Your task to perform on an android device: Go to internet settings Image 0: 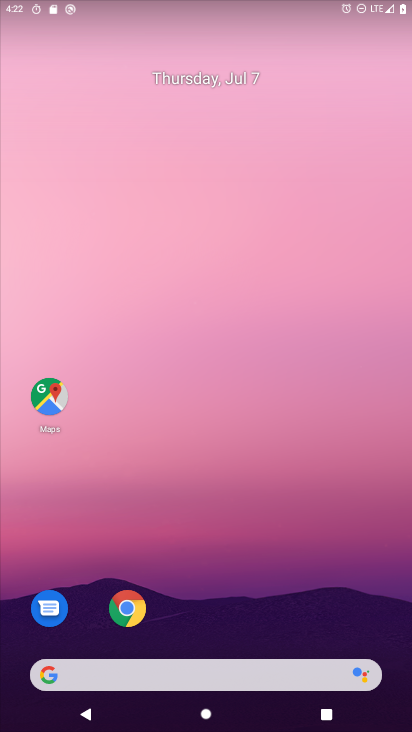
Step 0: drag from (236, 617) to (236, 90)
Your task to perform on an android device: Go to internet settings Image 1: 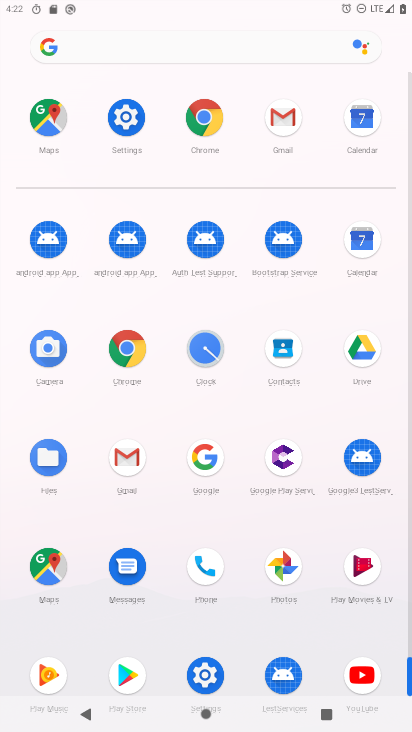
Step 1: click (134, 109)
Your task to perform on an android device: Go to internet settings Image 2: 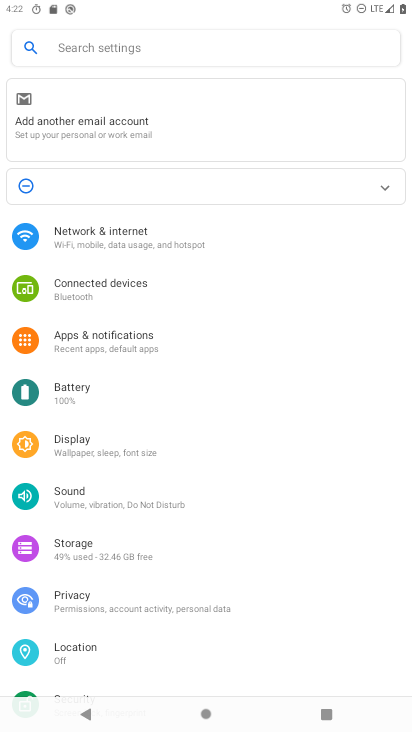
Step 2: click (96, 230)
Your task to perform on an android device: Go to internet settings Image 3: 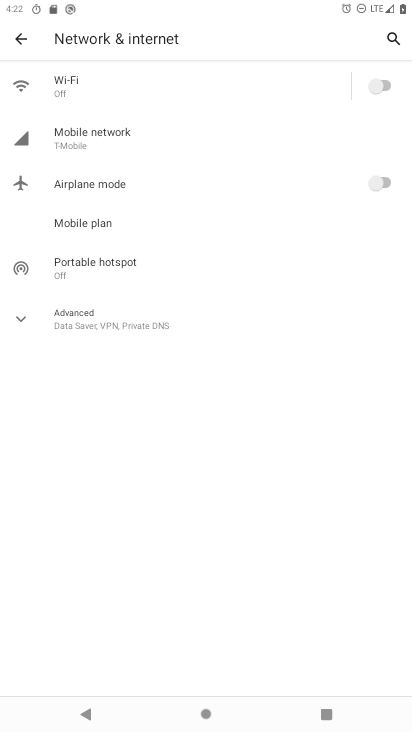
Step 3: task complete